Your task to perform on an android device: Search for seafood restaurants on Google Maps Image 0: 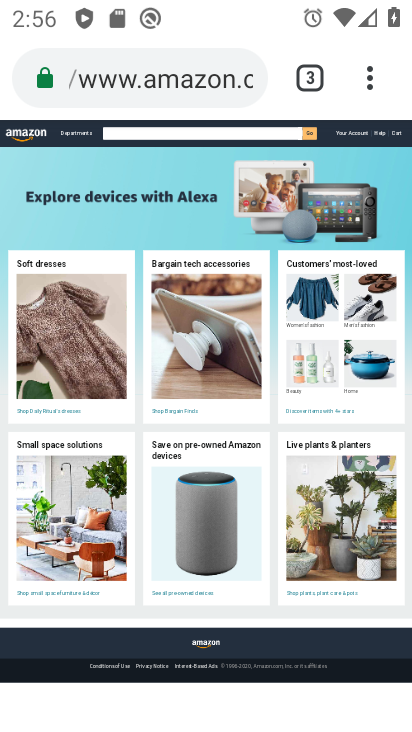
Step 0: click (192, 97)
Your task to perform on an android device: Search for seafood restaurants on Google Maps Image 1: 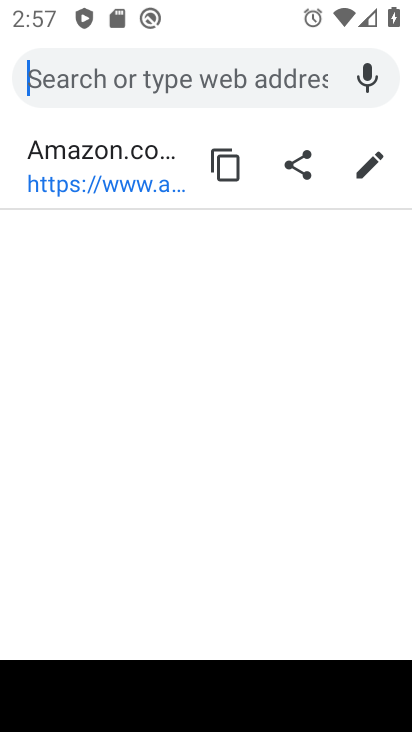
Step 1: type "yahoo.com"
Your task to perform on an android device: Search for seafood restaurants on Google Maps Image 2: 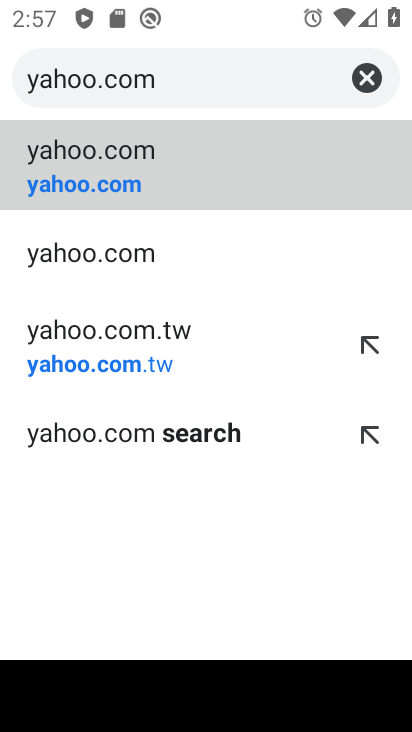
Step 2: click (143, 154)
Your task to perform on an android device: Search for seafood restaurants on Google Maps Image 3: 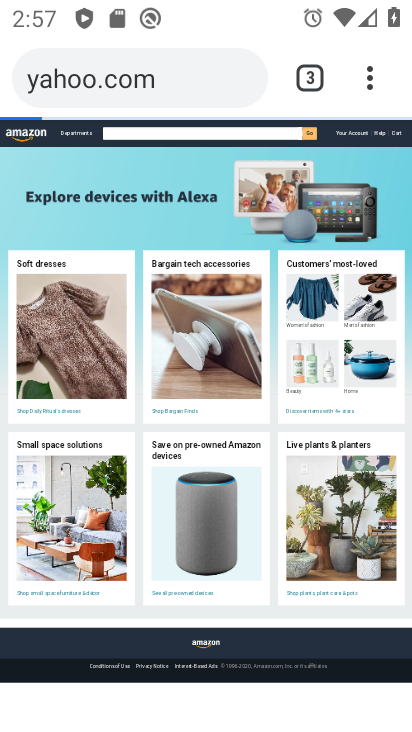
Step 3: task complete